Your task to perform on an android device: toggle location history Image 0: 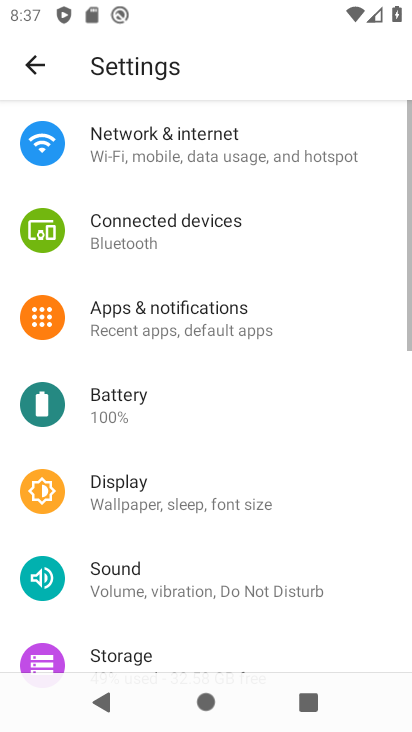
Step 0: press home button
Your task to perform on an android device: toggle location history Image 1: 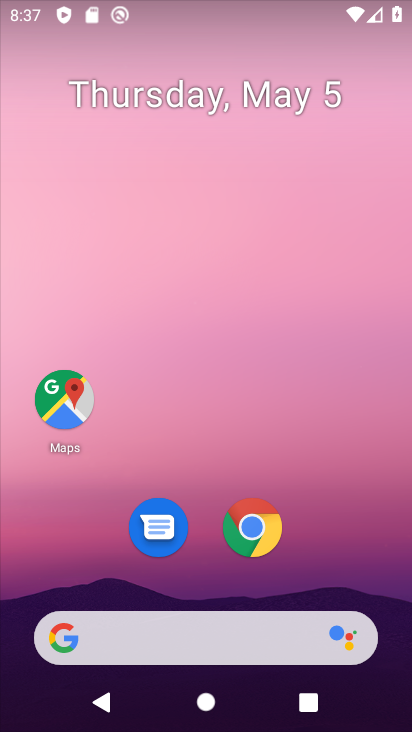
Step 1: click (48, 417)
Your task to perform on an android device: toggle location history Image 2: 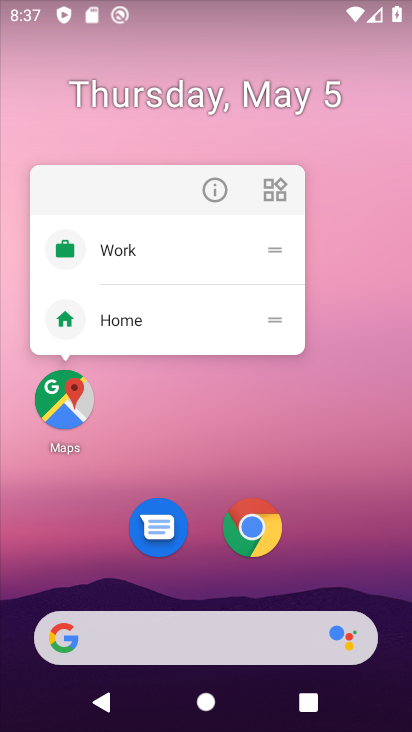
Step 2: click (66, 401)
Your task to perform on an android device: toggle location history Image 3: 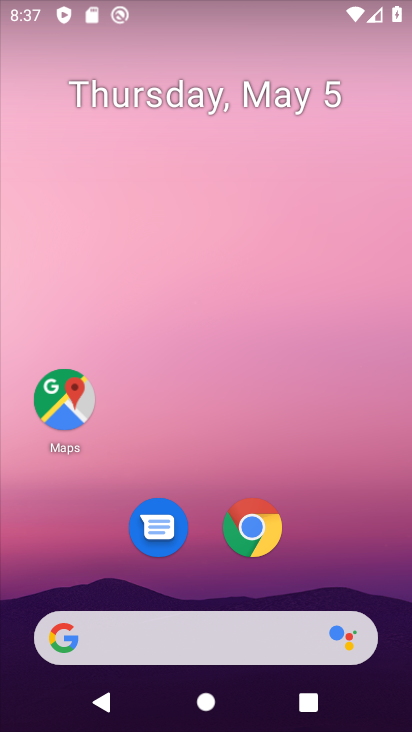
Step 3: click (66, 401)
Your task to perform on an android device: toggle location history Image 4: 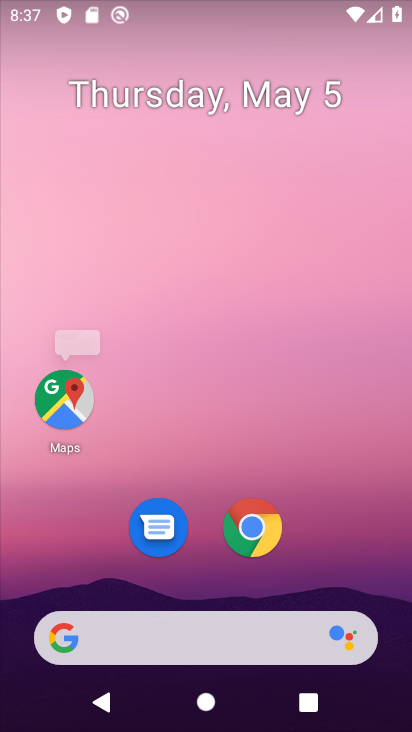
Step 4: click (66, 401)
Your task to perform on an android device: toggle location history Image 5: 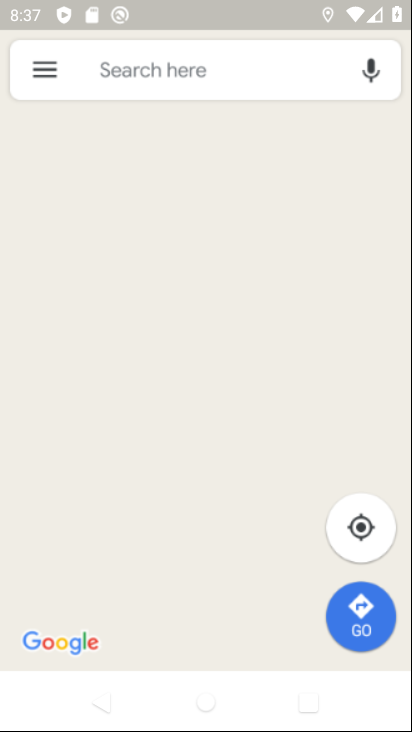
Step 5: click (66, 401)
Your task to perform on an android device: toggle location history Image 6: 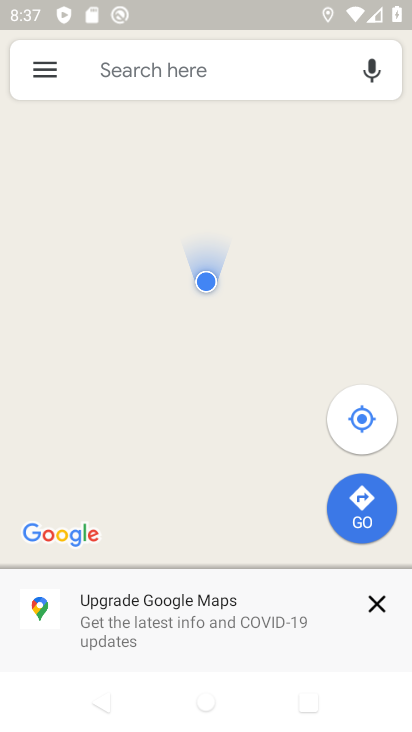
Step 6: click (47, 74)
Your task to perform on an android device: toggle location history Image 7: 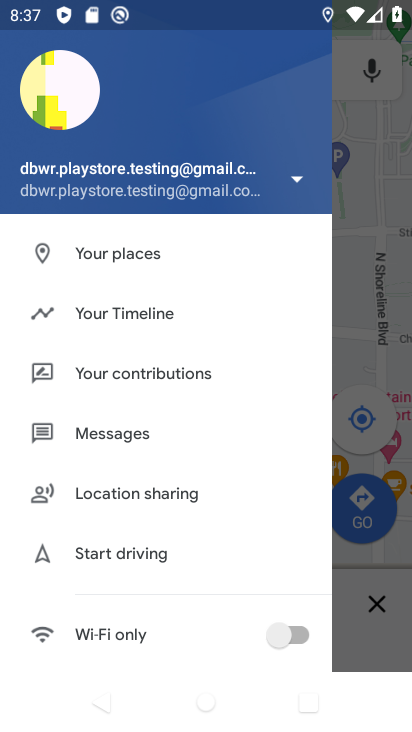
Step 7: click (133, 314)
Your task to perform on an android device: toggle location history Image 8: 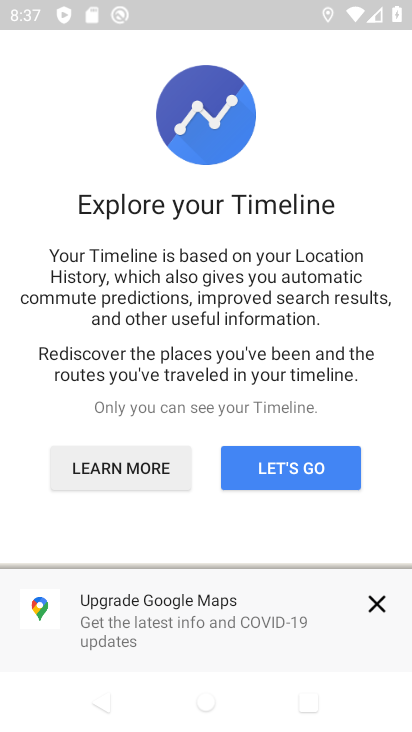
Step 8: click (309, 466)
Your task to perform on an android device: toggle location history Image 9: 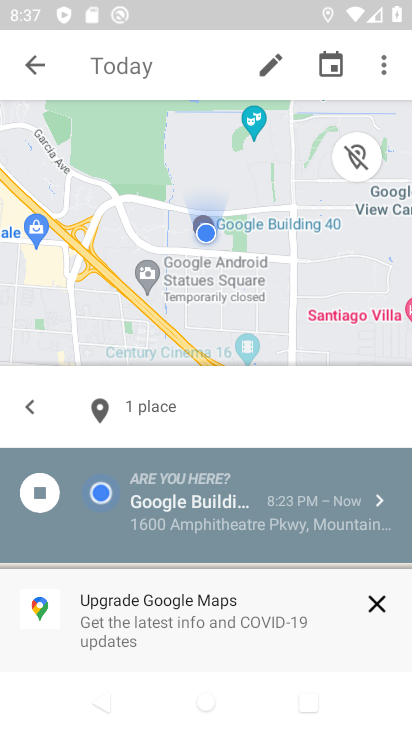
Step 9: click (379, 61)
Your task to perform on an android device: toggle location history Image 10: 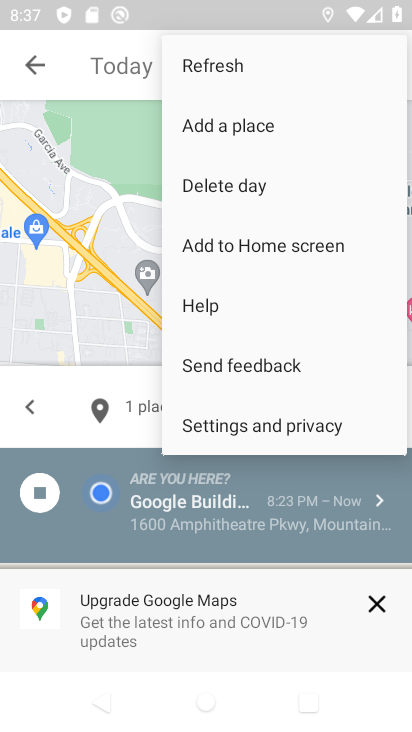
Step 10: click (263, 423)
Your task to perform on an android device: toggle location history Image 11: 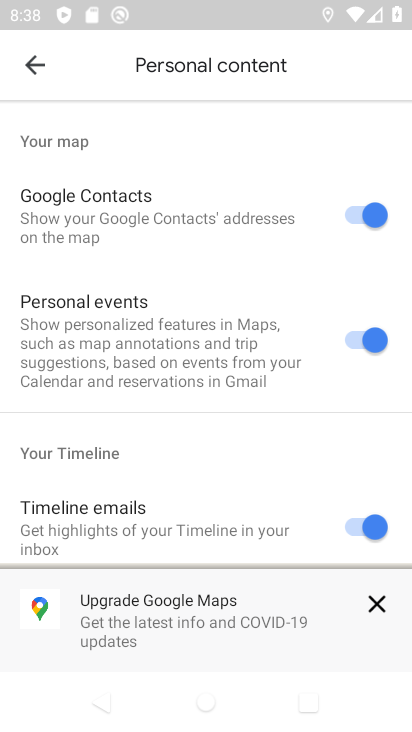
Step 11: drag from (217, 481) to (153, 108)
Your task to perform on an android device: toggle location history Image 12: 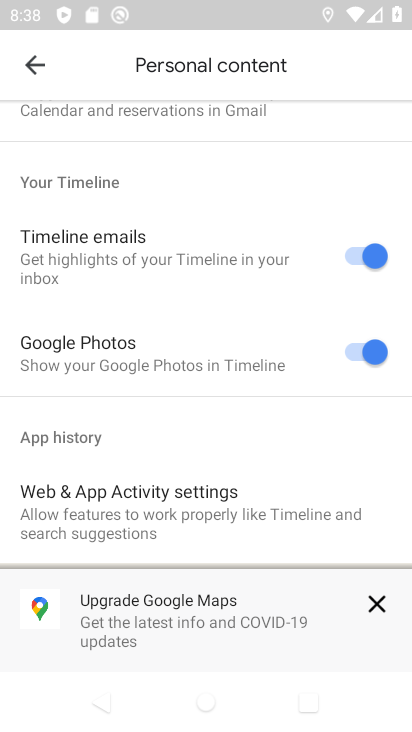
Step 12: drag from (241, 470) to (200, 168)
Your task to perform on an android device: toggle location history Image 13: 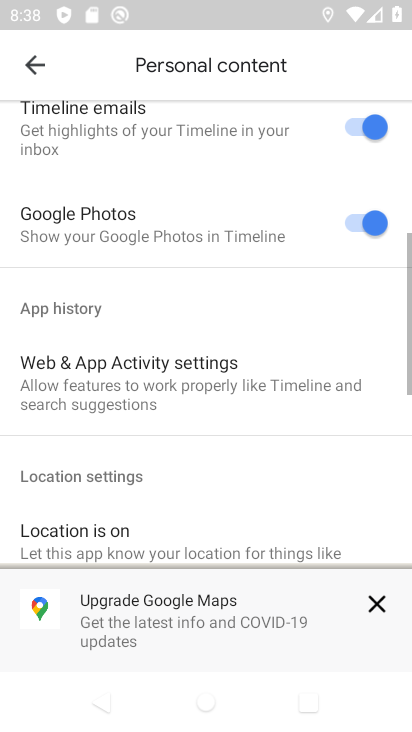
Step 13: drag from (240, 340) to (240, 114)
Your task to perform on an android device: toggle location history Image 14: 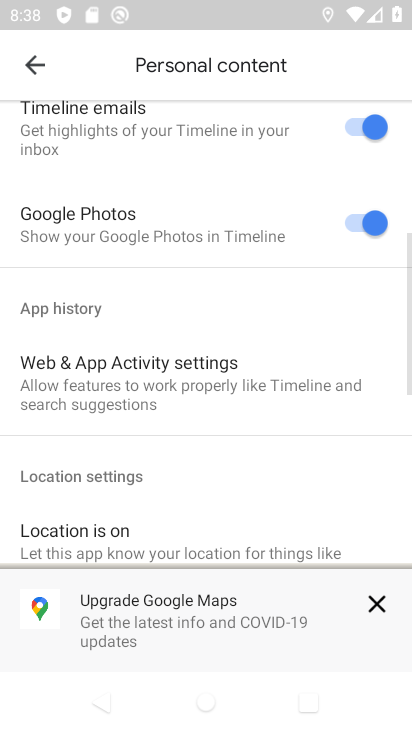
Step 14: drag from (294, 318) to (292, 131)
Your task to perform on an android device: toggle location history Image 15: 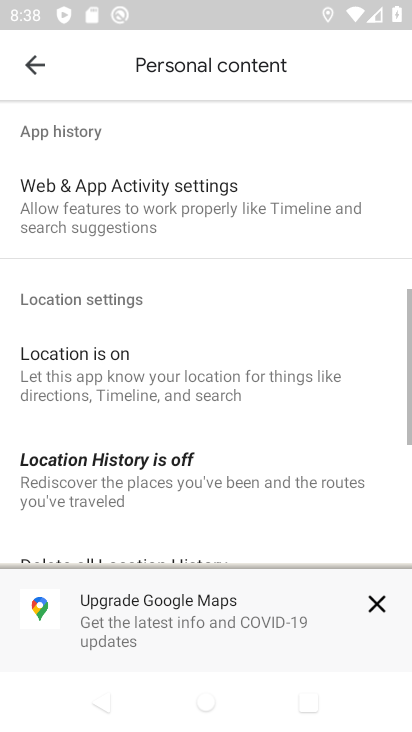
Step 15: click (209, 133)
Your task to perform on an android device: toggle location history Image 16: 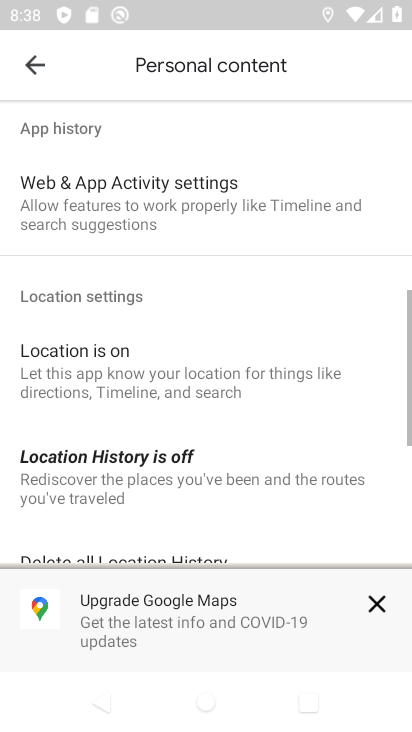
Step 16: drag from (267, 499) to (231, 166)
Your task to perform on an android device: toggle location history Image 17: 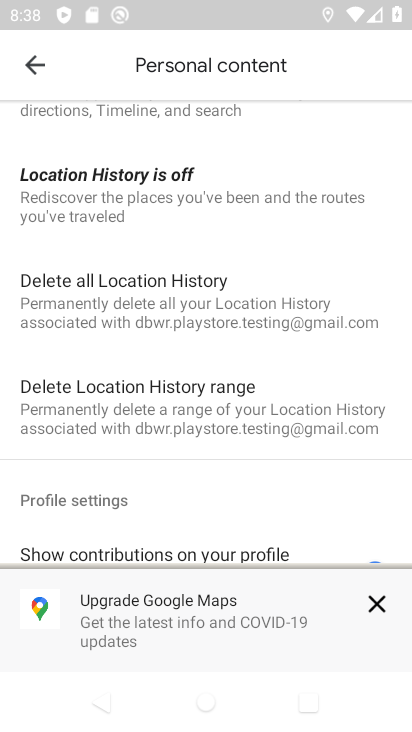
Step 17: click (106, 475)
Your task to perform on an android device: toggle location history Image 18: 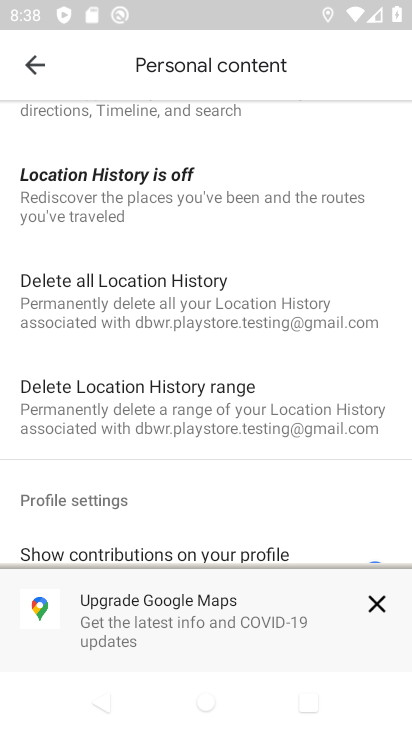
Step 18: click (87, 202)
Your task to perform on an android device: toggle location history Image 19: 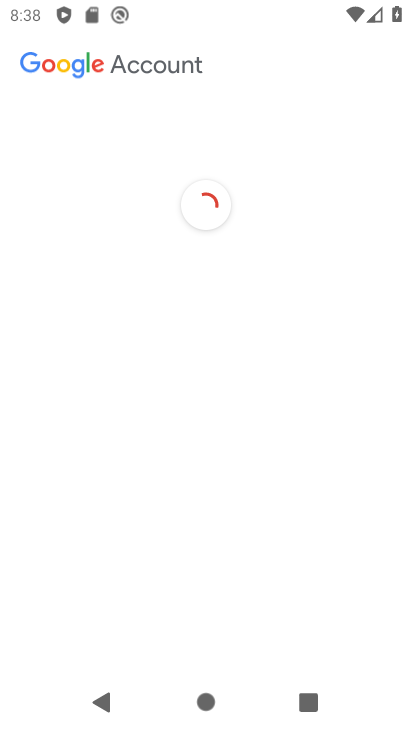
Step 19: click (89, 187)
Your task to perform on an android device: toggle location history Image 20: 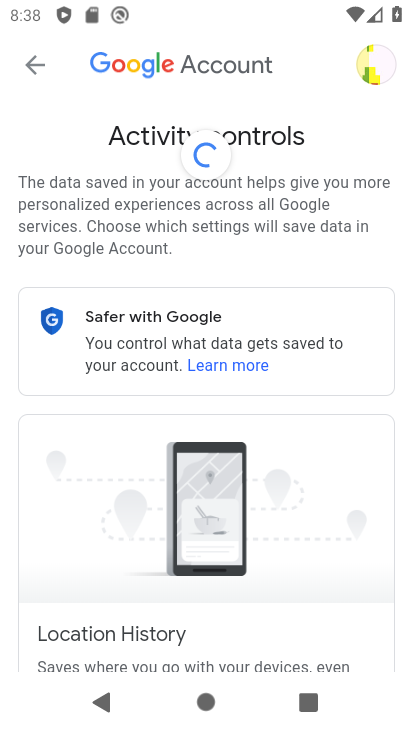
Step 20: drag from (272, 545) to (257, 129)
Your task to perform on an android device: toggle location history Image 21: 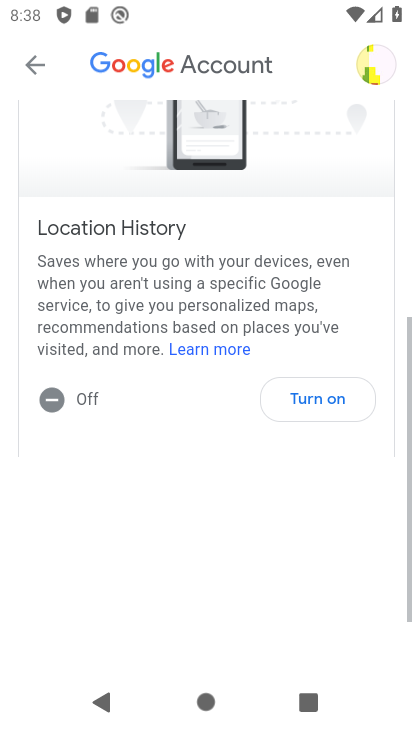
Step 21: drag from (250, 536) to (224, 165)
Your task to perform on an android device: toggle location history Image 22: 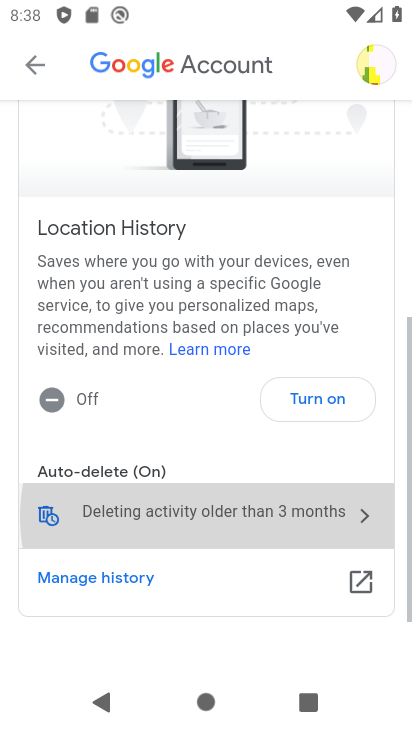
Step 22: drag from (255, 504) to (241, 267)
Your task to perform on an android device: toggle location history Image 23: 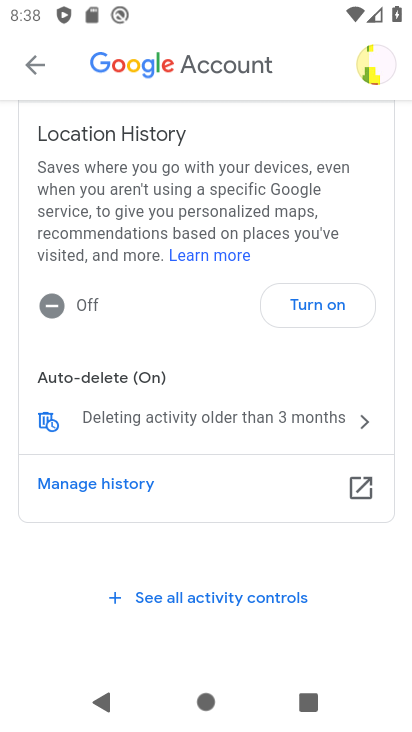
Step 23: click (328, 305)
Your task to perform on an android device: toggle location history Image 24: 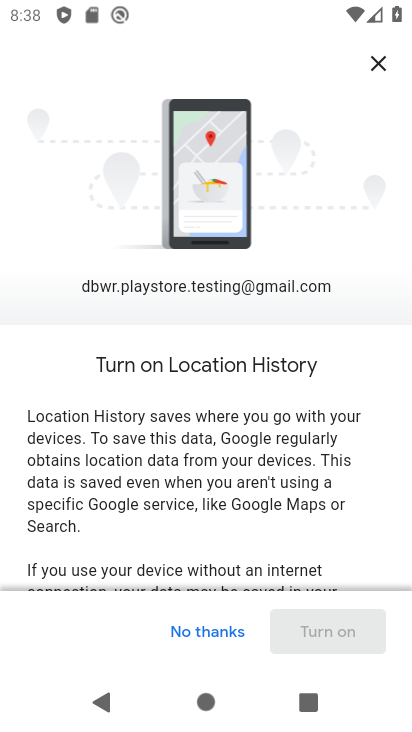
Step 24: task complete